Your task to perform on an android device: Go to settings Image 0: 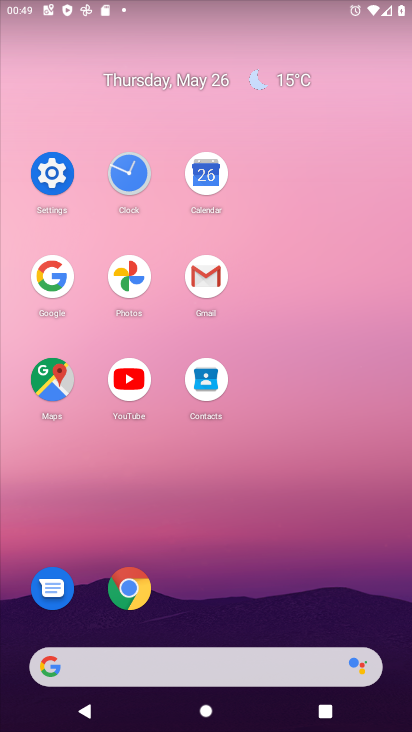
Step 0: click (48, 184)
Your task to perform on an android device: Go to settings Image 1: 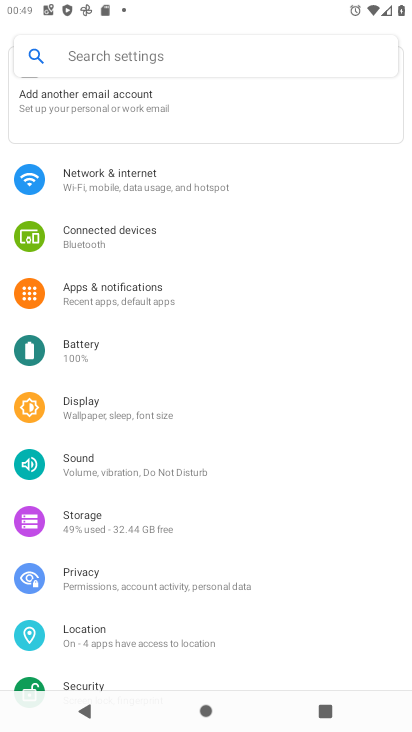
Step 1: task complete